Your task to perform on an android device: Go to notification settings Image 0: 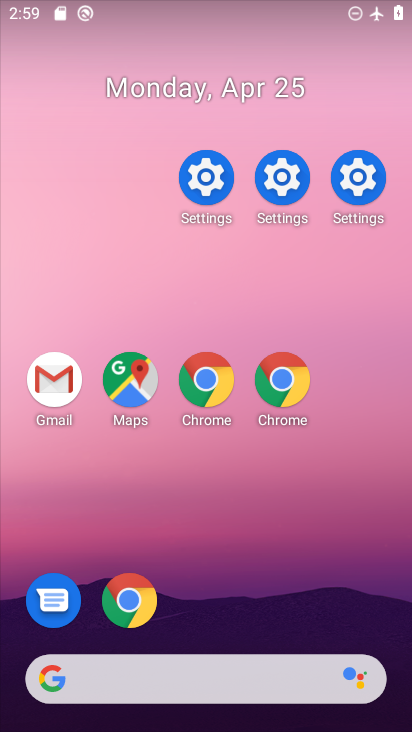
Step 0: drag from (230, 672) to (165, 112)
Your task to perform on an android device: Go to notification settings Image 1: 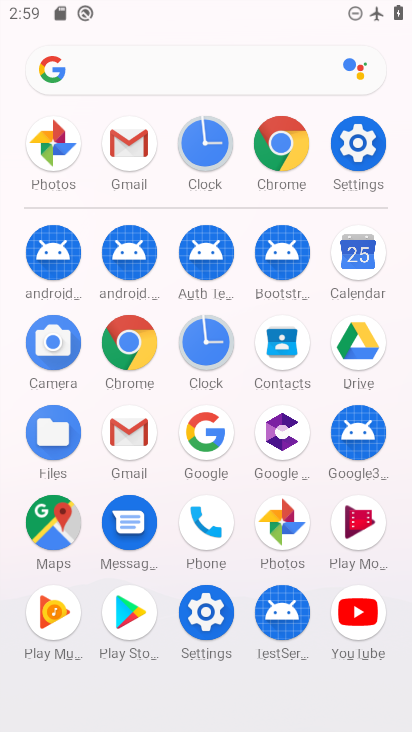
Step 1: drag from (261, 578) to (162, 283)
Your task to perform on an android device: Go to notification settings Image 2: 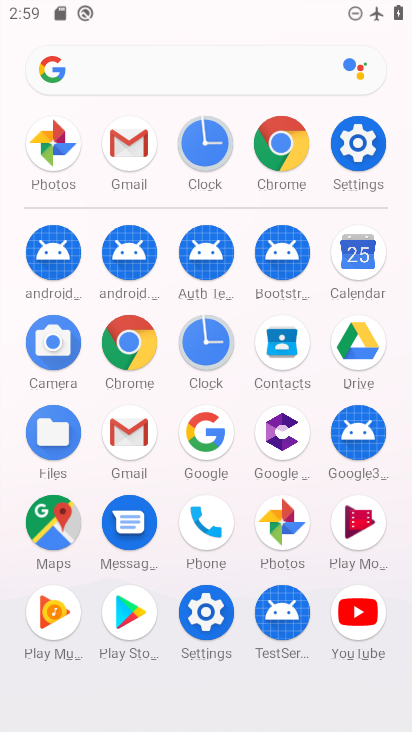
Step 2: click (363, 146)
Your task to perform on an android device: Go to notification settings Image 3: 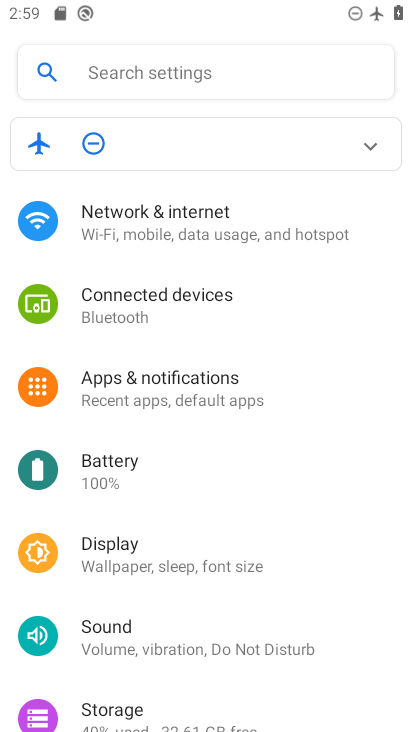
Step 3: click (169, 384)
Your task to perform on an android device: Go to notification settings Image 4: 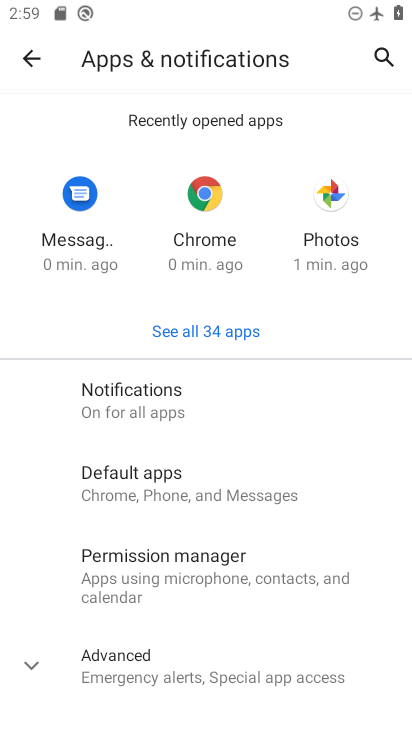
Step 4: click (153, 399)
Your task to perform on an android device: Go to notification settings Image 5: 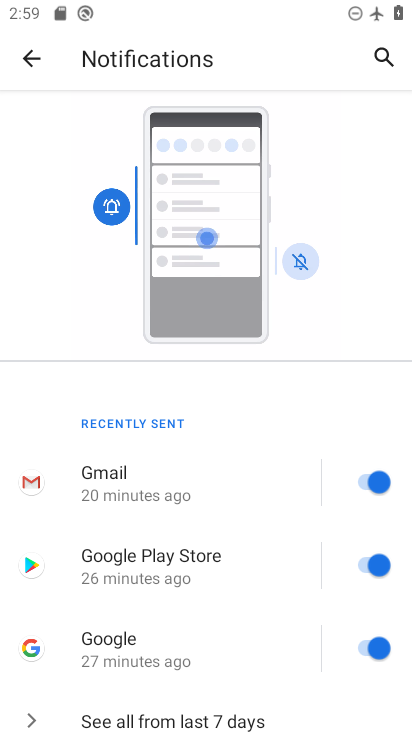
Step 5: drag from (215, 582) to (167, 113)
Your task to perform on an android device: Go to notification settings Image 6: 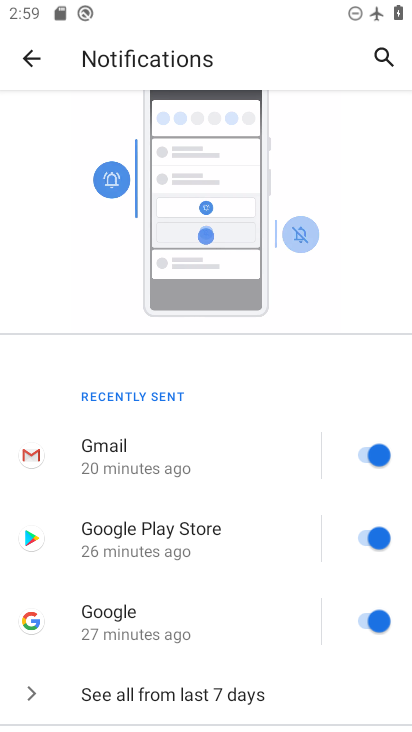
Step 6: drag from (248, 310) to (244, 70)
Your task to perform on an android device: Go to notification settings Image 7: 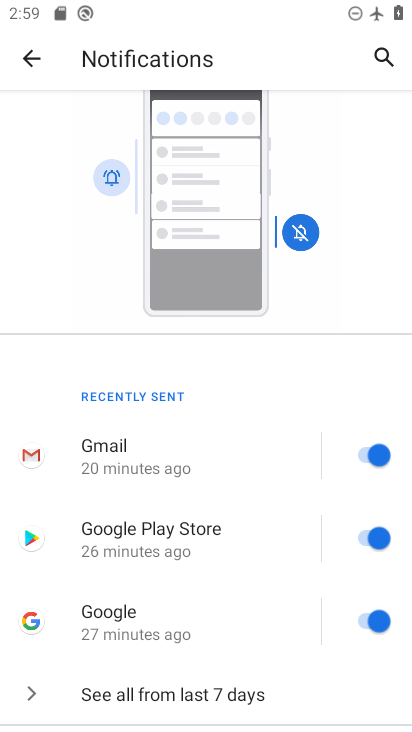
Step 7: drag from (215, 540) to (184, 94)
Your task to perform on an android device: Go to notification settings Image 8: 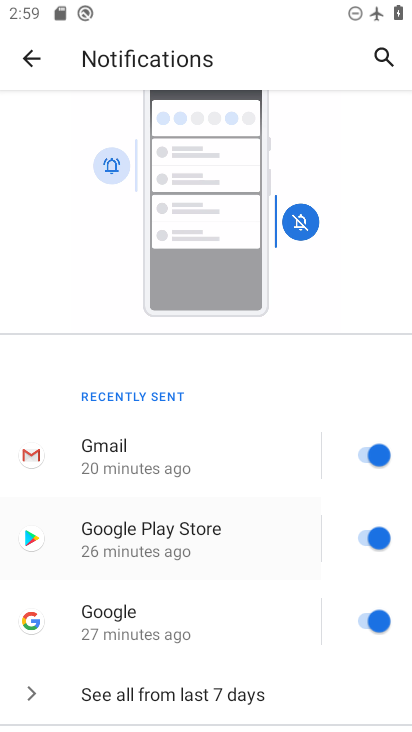
Step 8: drag from (163, 538) to (157, 5)
Your task to perform on an android device: Go to notification settings Image 9: 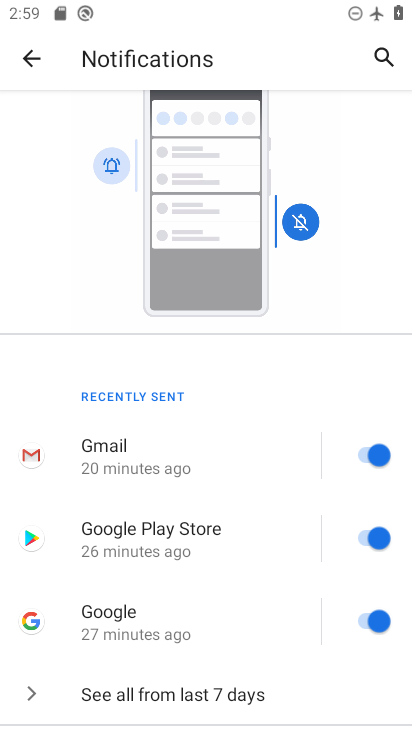
Step 9: drag from (163, 521) to (151, 143)
Your task to perform on an android device: Go to notification settings Image 10: 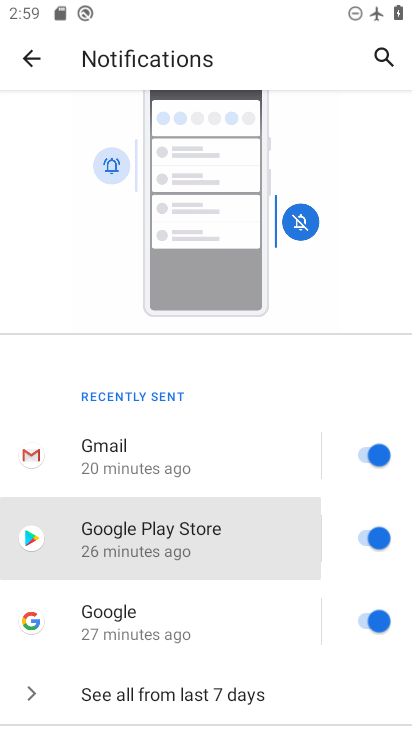
Step 10: drag from (155, 550) to (43, 9)
Your task to perform on an android device: Go to notification settings Image 11: 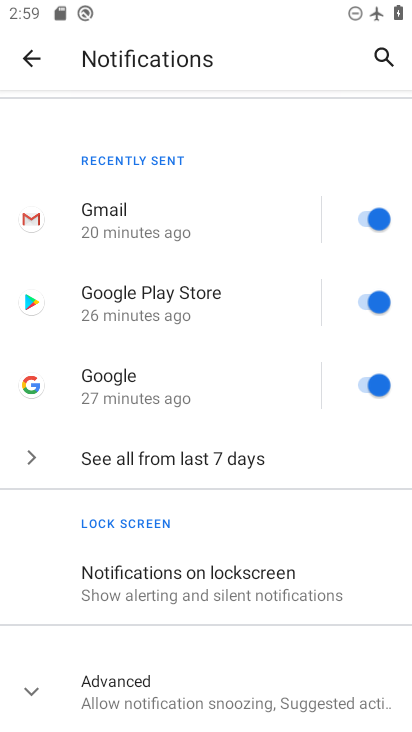
Step 11: click (200, 563)
Your task to perform on an android device: Go to notification settings Image 12: 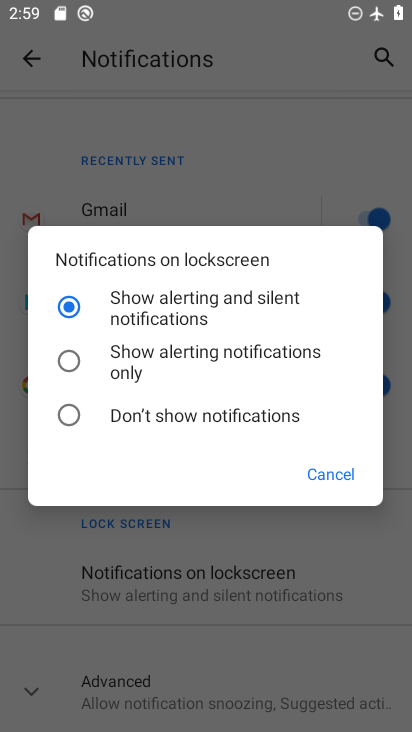
Step 12: click (323, 476)
Your task to perform on an android device: Go to notification settings Image 13: 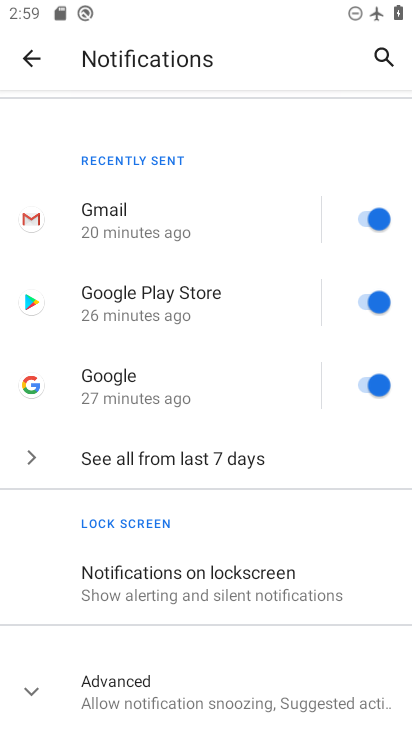
Step 13: task complete